Your task to perform on an android device: turn on location history Image 0: 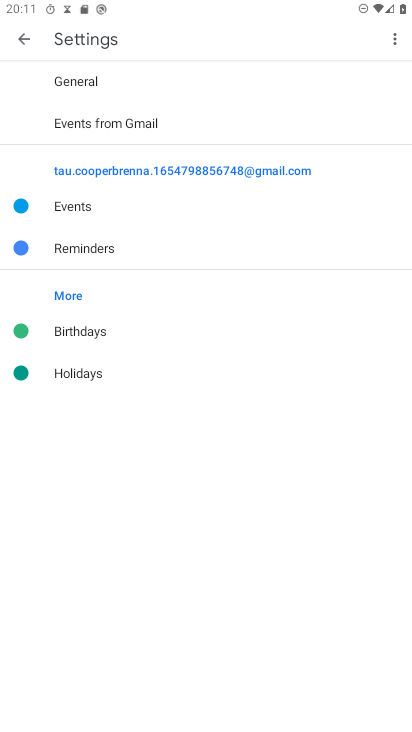
Step 0: press home button
Your task to perform on an android device: turn on location history Image 1: 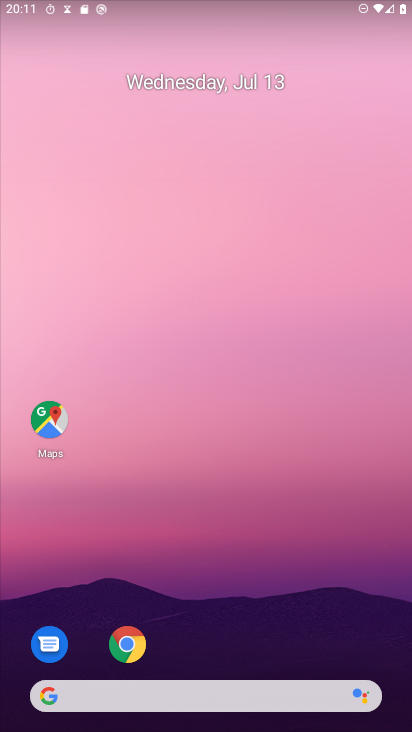
Step 1: drag from (253, 654) to (309, 7)
Your task to perform on an android device: turn on location history Image 2: 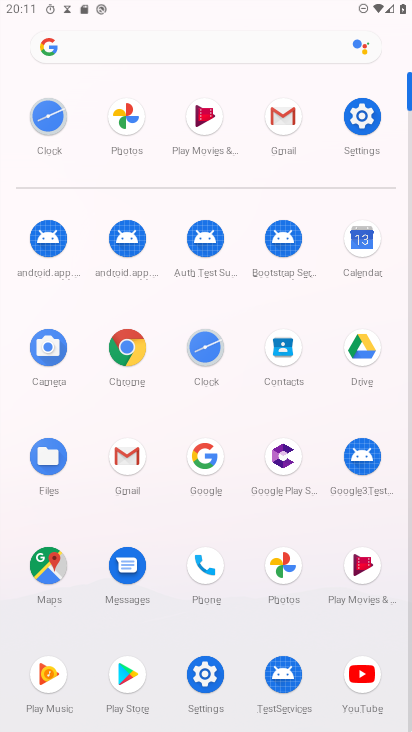
Step 2: click (355, 117)
Your task to perform on an android device: turn on location history Image 3: 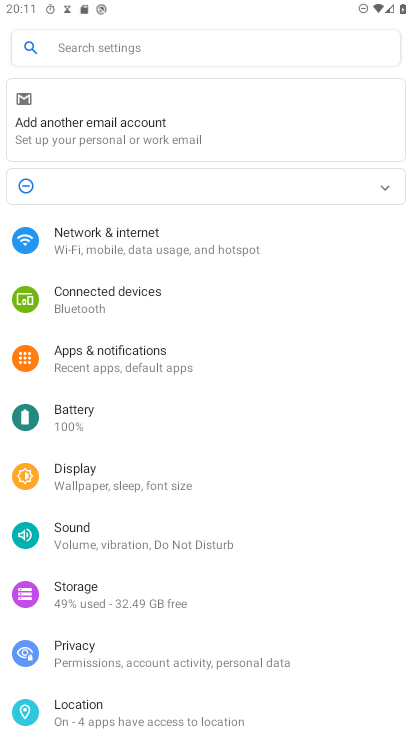
Step 3: click (86, 702)
Your task to perform on an android device: turn on location history Image 4: 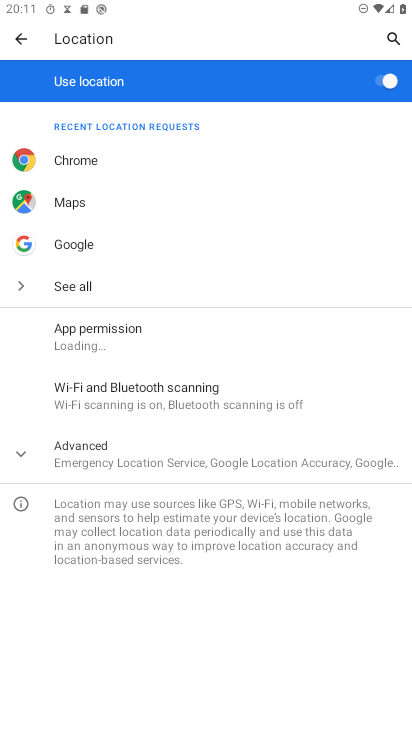
Step 4: click (192, 450)
Your task to perform on an android device: turn on location history Image 5: 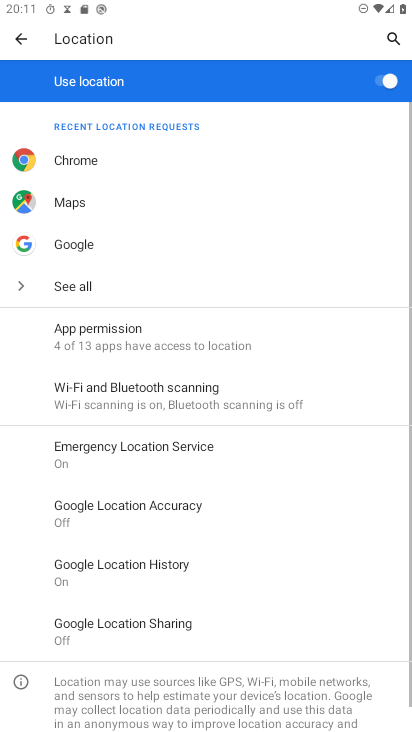
Step 5: click (137, 574)
Your task to perform on an android device: turn on location history Image 6: 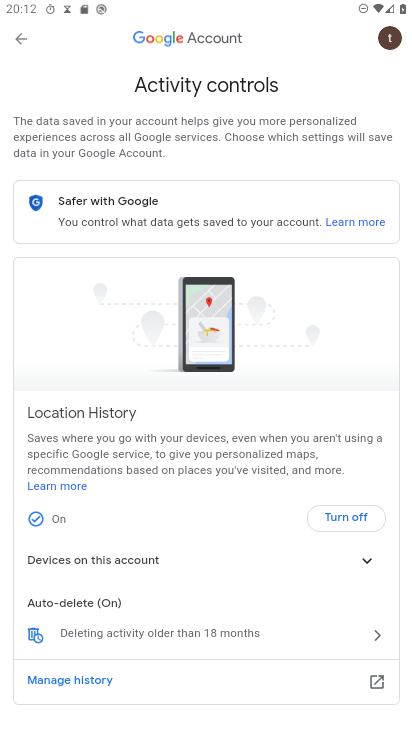
Step 6: task complete